Your task to perform on an android device: toggle wifi Image 0: 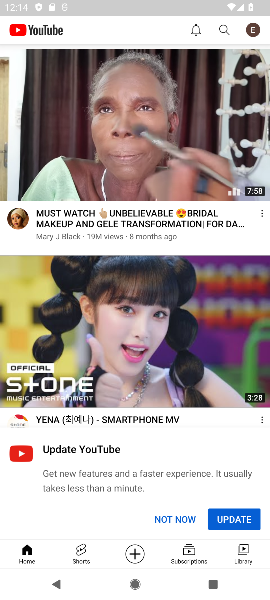
Step 0: drag from (55, 0) to (58, 460)
Your task to perform on an android device: toggle wifi Image 1: 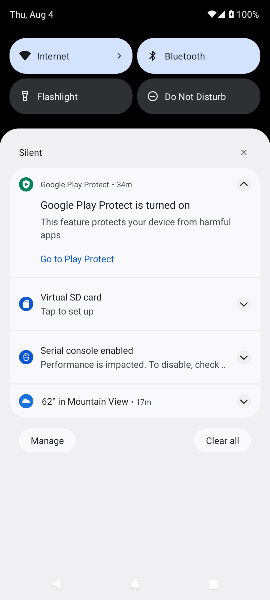
Step 1: click (37, 61)
Your task to perform on an android device: toggle wifi Image 2: 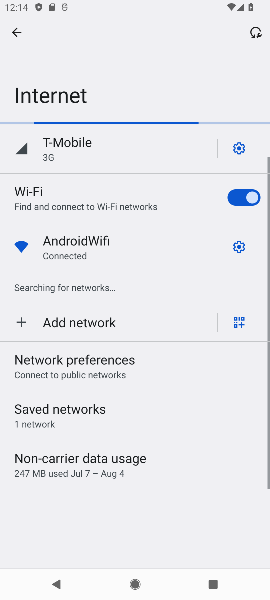
Step 2: click (229, 190)
Your task to perform on an android device: toggle wifi Image 3: 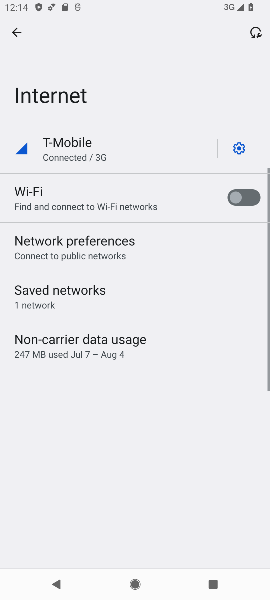
Step 3: task complete